Your task to perform on an android device: manage bookmarks in the chrome app Image 0: 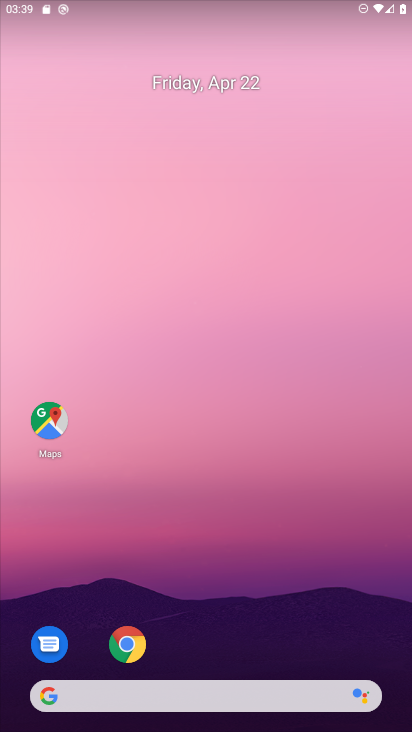
Step 0: drag from (283, 590) to (252, 97)
Your task to perform on an android device: manage bookmarks in the chrome app Image 1: 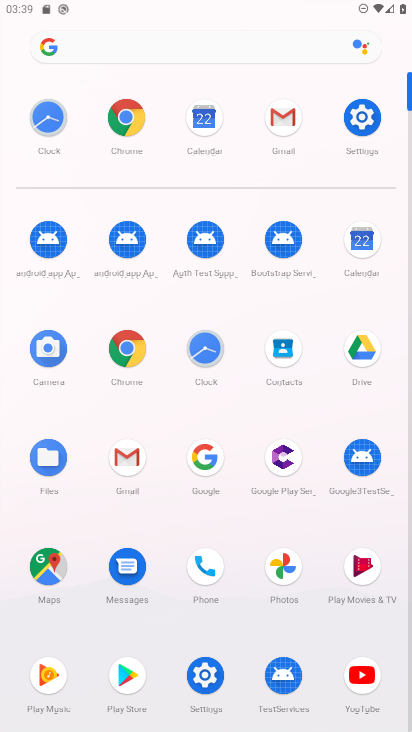
Step 1: click (118, 349)
Your task to perform on an android device: manage bookmarks in the chrome app Image 2: 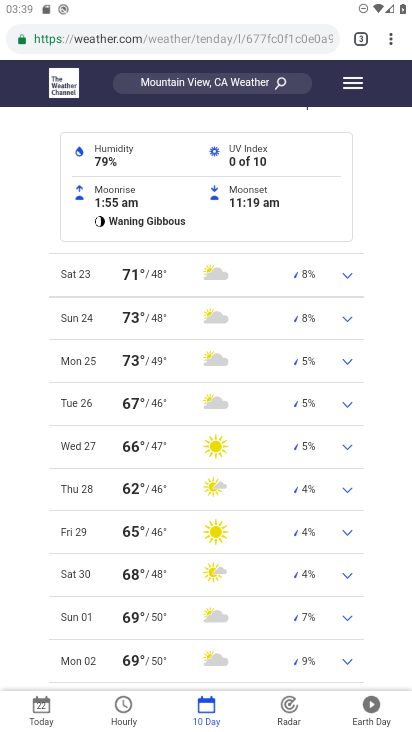
Step 2: task complete